Your task to perform on an android device: set the stopwatch Image 0: 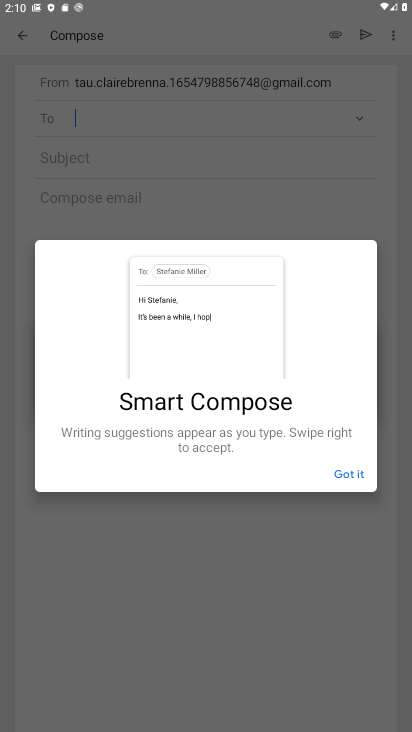
Step 0: press home button
Your task to perform on an android device: set the stopwatch Image 1: 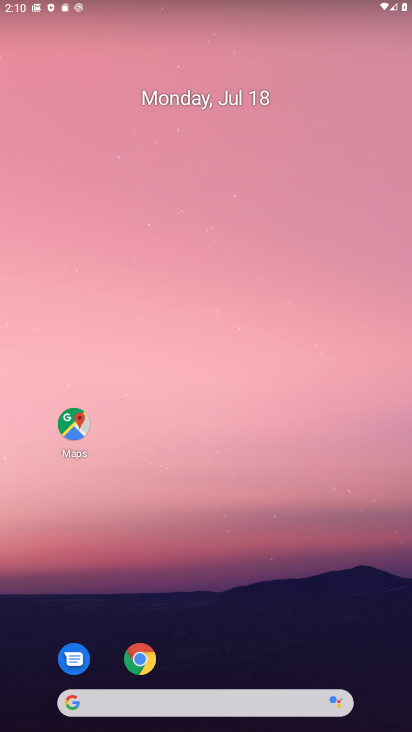
Step 1: drag from (206, 698) to (213, 101)
Your task to perform on an android device: set the stopwatch Image 2: 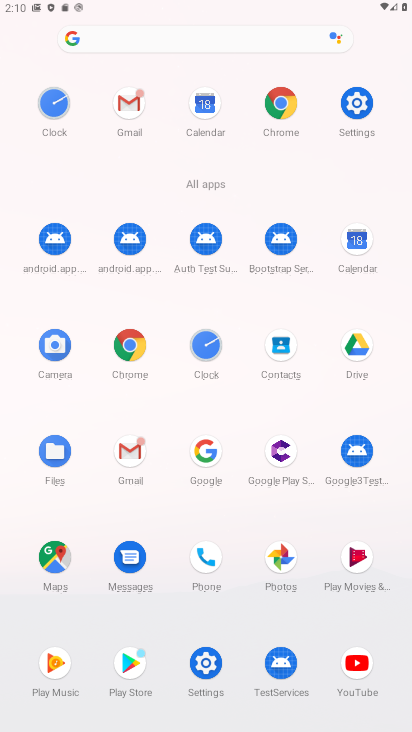
Step 2: click (211, 356)
Your task to perform on an android device: set the stopwatch Image 3: 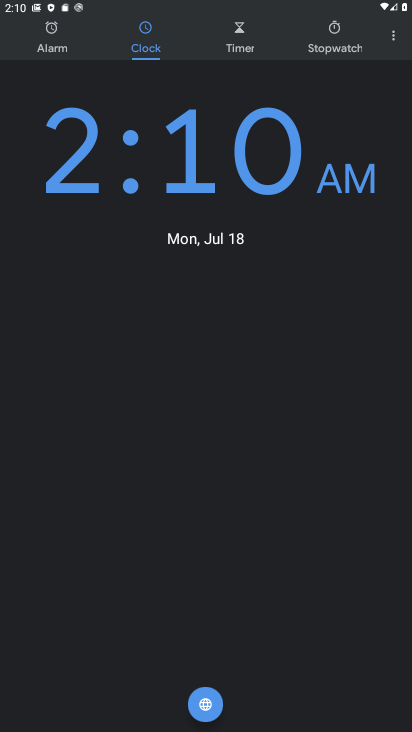
Step 3: click (353, 34)
Your task to perform on an android device: set the stopwatch Image 4: 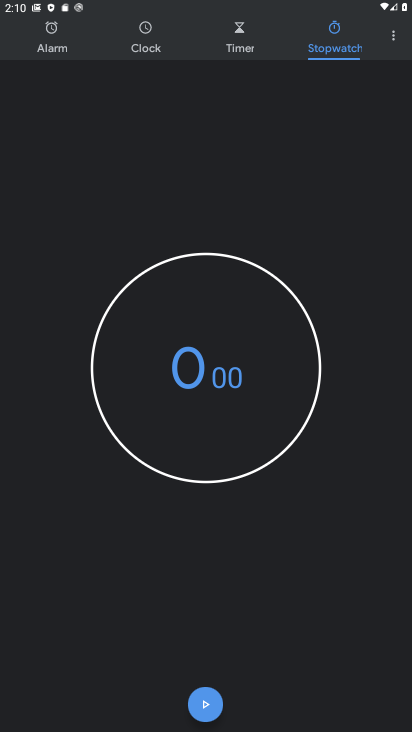
Step 4: click (205, 385)
Your task to perform on an android device: set the stopwatch Image 5: 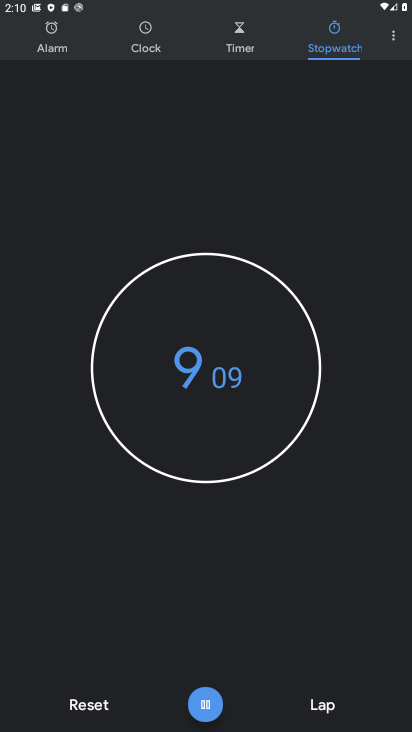
Step 5: task complete